Your task to perform on an android device: Find coffee shops on Maps Image 0: 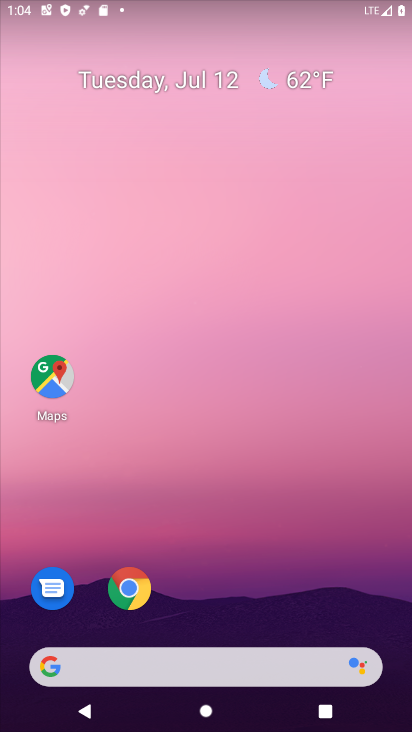
Step 0: click (58, 378)
Your task to perform on an android device: Find coffee shops on Maps Image 1: 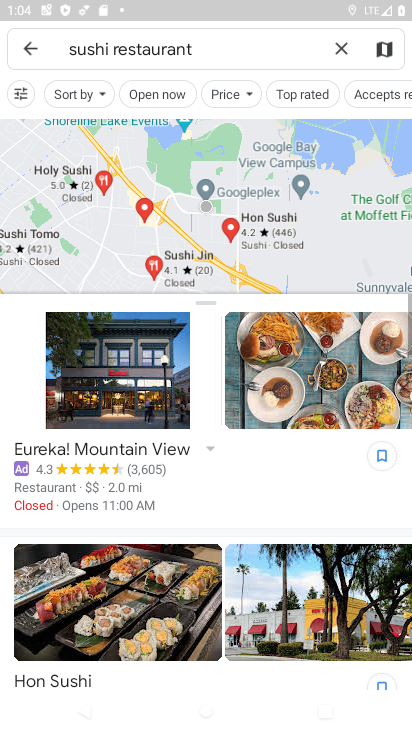
Step 1: click (347, 45)
Your task to perform on an android device: Find coffee shops on Maps Image 2: 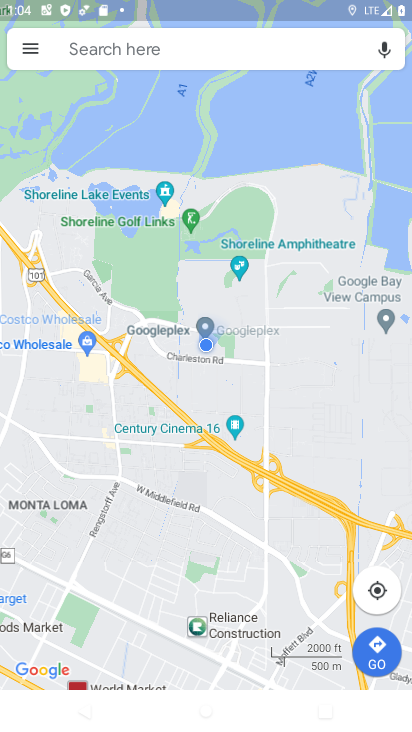
Step 2: click (296, 55)
Your task to perform on an android device: Find coffee shops on Maps Image 3: 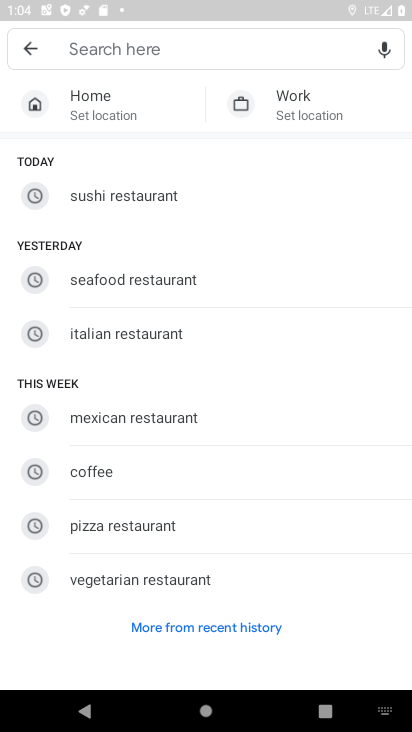
Step 3: click (116, 467)
Your task to perform on an android device: Find coffee shops on Maps Image 4: 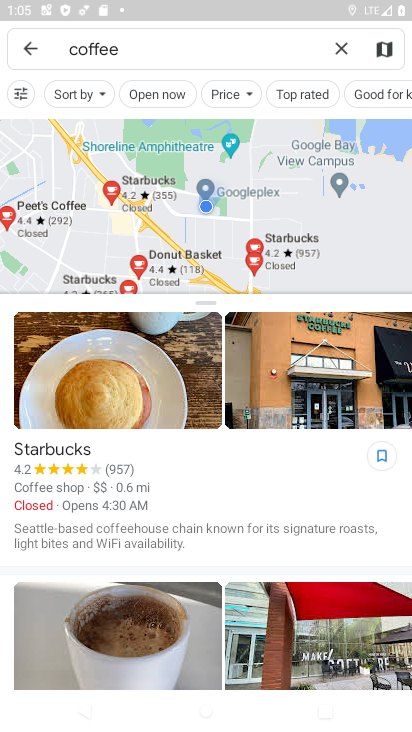
Step 4: task complete